Your task to perform on an android device: Show the shopping cart on ebay. Add "macbook" to the cart on ebay Image 0: 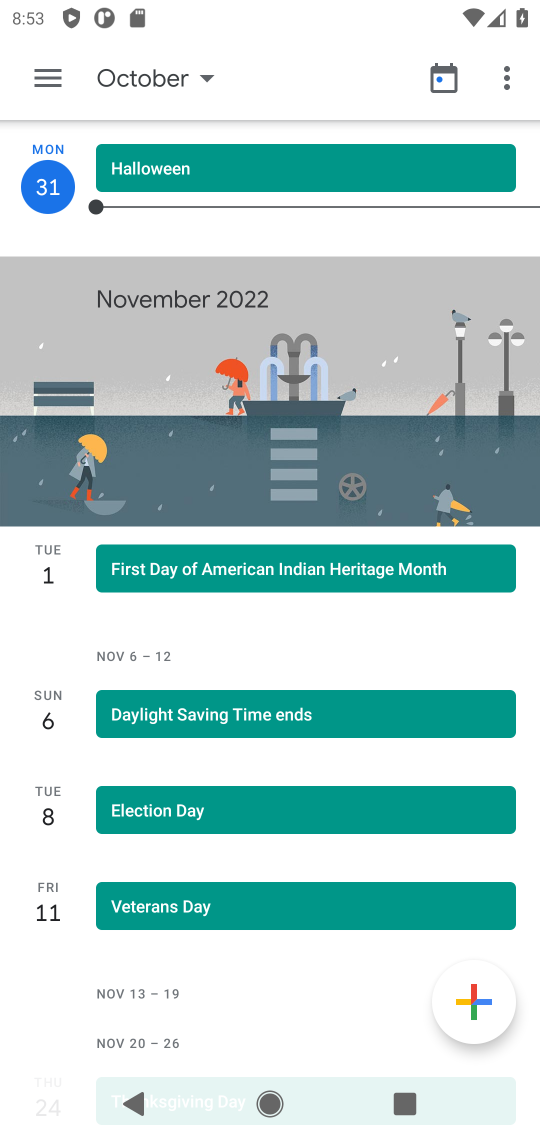
Step 0: press home button
Your task to perform on an android device: Show the shopping cart on ebay. Add "macbook" to the cart on ebay Image 1: 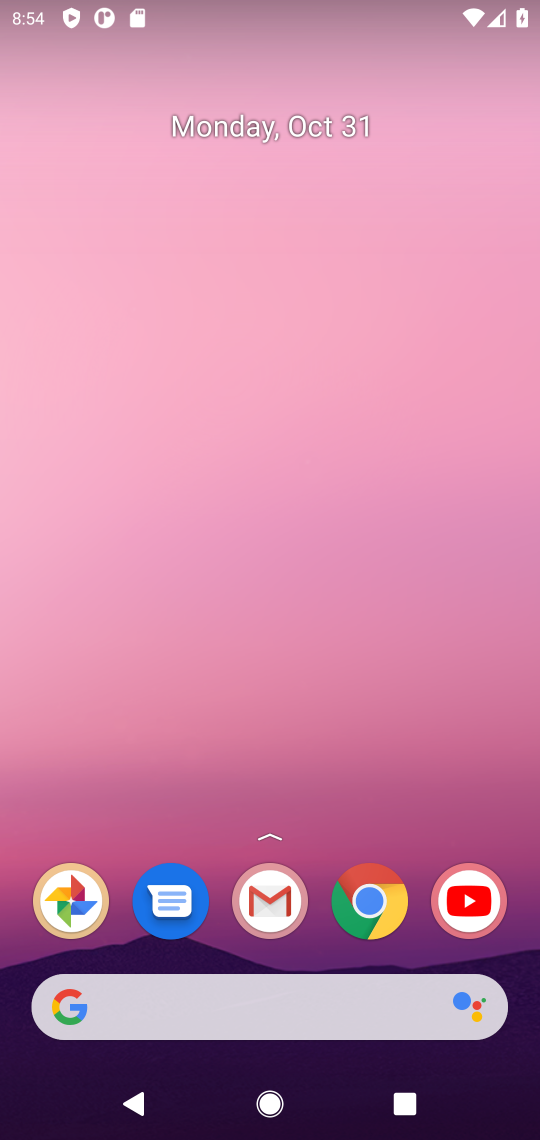
Step 1: drag from (197, 971) to (207, 261)
Your task to perform on an android device: Show the shopping cart on ebay. Add "macbook" to the cart on ebay Image 2: 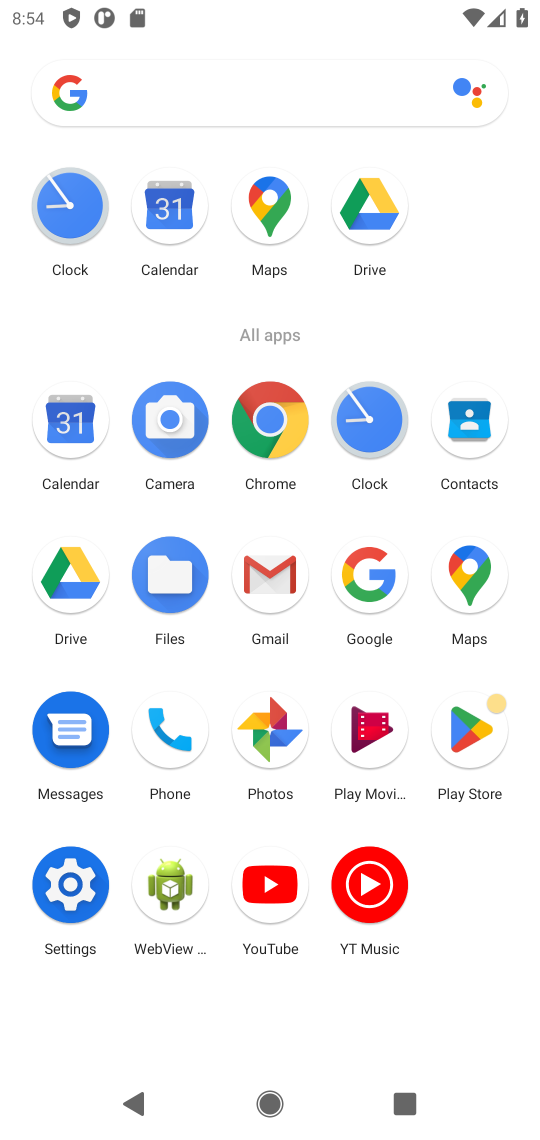
Step 2: click (361, 578)
Your task to perform on an android device: Show the shopping cart on ebay. Add "macbook" to the cart on ebay Image 3: 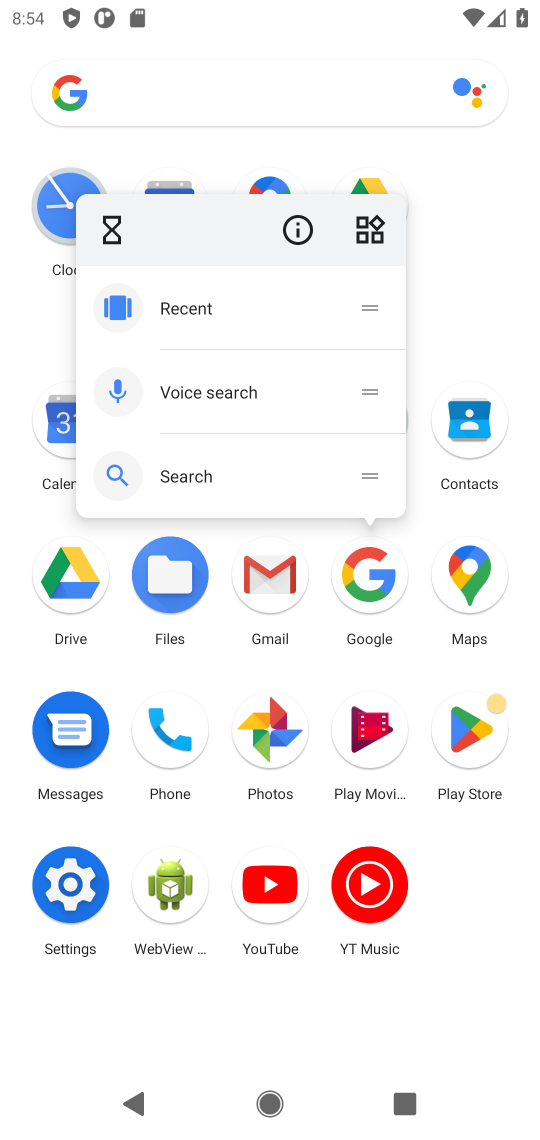
Step 3: click (361, 563)
Your task to perform on an android device: Show the shopping cart on ebay. Add "macbook" to the cart on ebay Image 4: 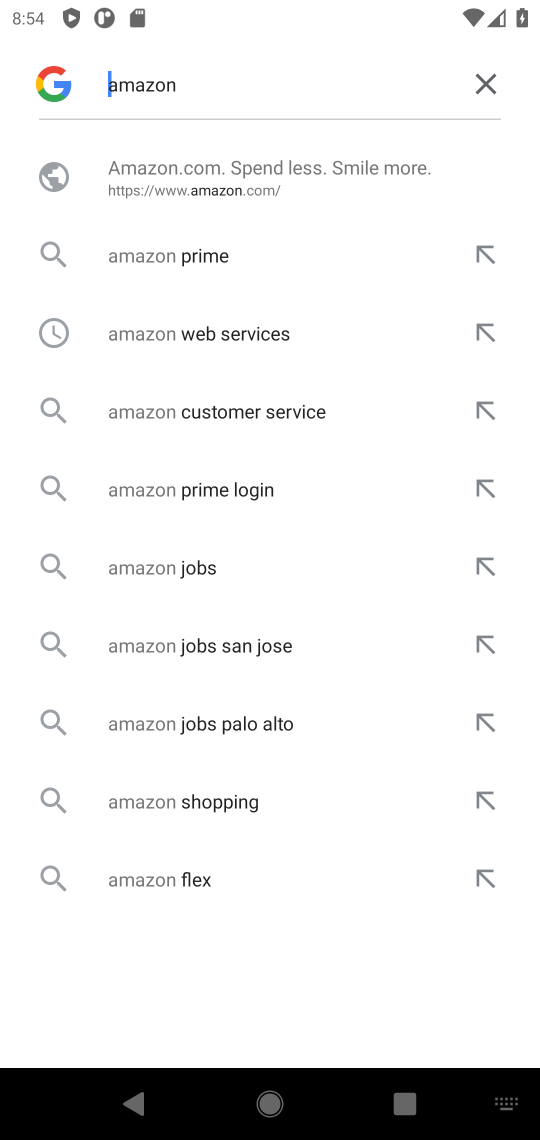
Step 4: click (472, 73)
Your task to perform on an android device: Show the shopping cart on ebay. Add "macbook" to the cart on ebay Image 5: 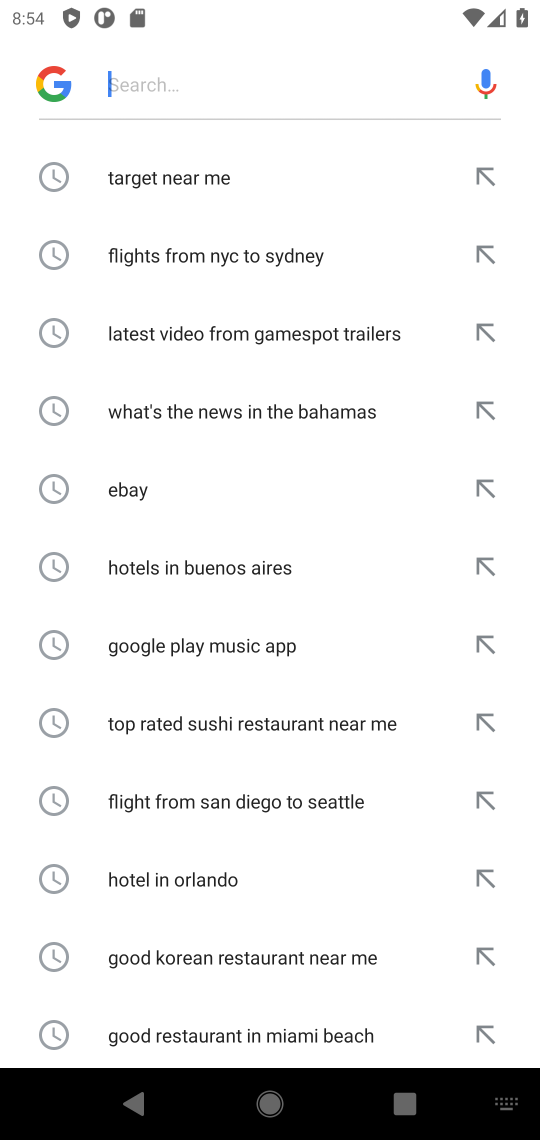
Step 5: click (274, 90)
Your task to perform on an android device: Show the shopping cart on ebay. Add "macbook" to the cart on ebay Image 6: 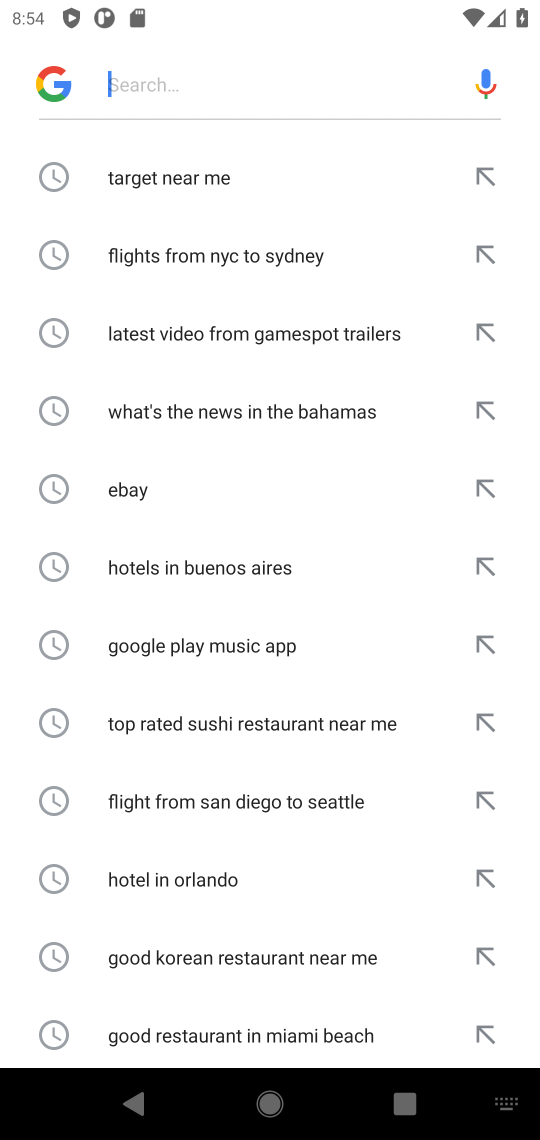
Step 6: type "ebay "
Your task to perform on an android device: Show the shopping cart on ebay. Add "macbook" to the cart on ebay Image 7: 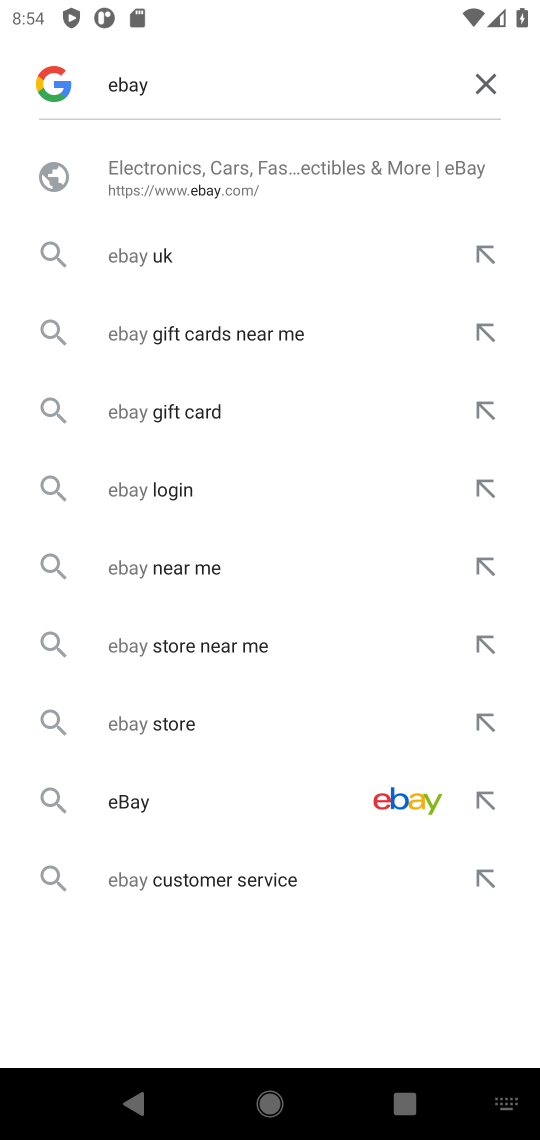
Step 7: click (134, 253)
Your task to perform on an android device: Show the shopping cart on ebay. Add "macbook" to the cart on ebay Image 8: 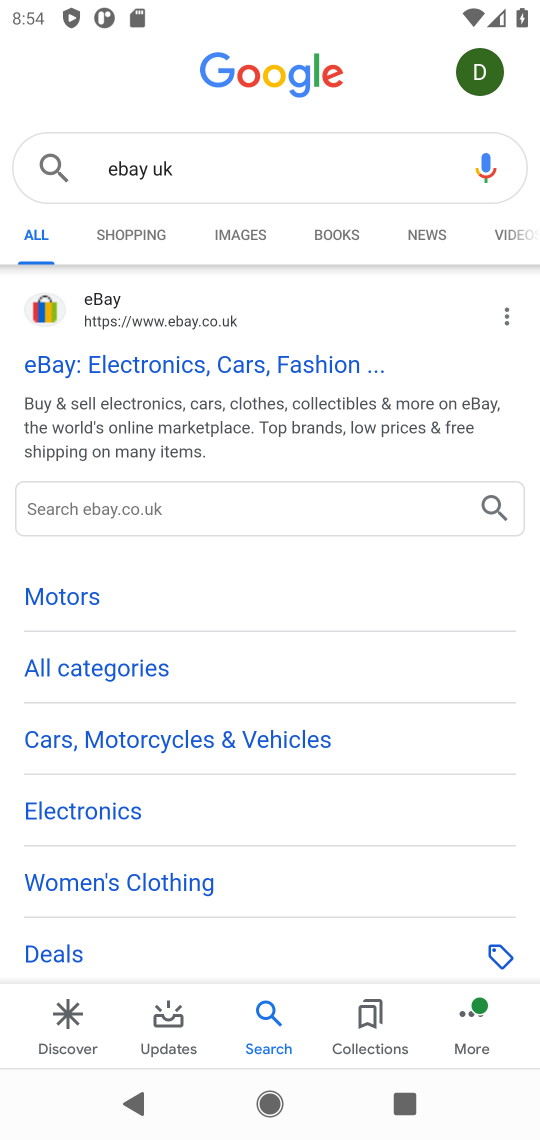
Step 8: click (46, 308)
Your task to perform on an android device: Show the shopping cart on ebay. Add "macbook" to the cart on ebay Image 9: 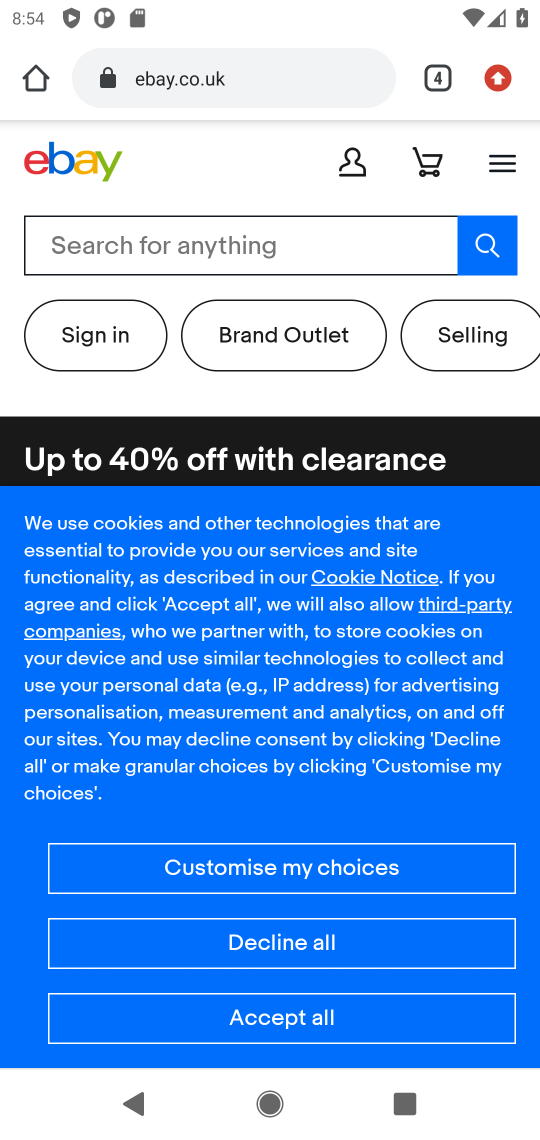
Step 9: click (194, 237)
Your task to perform on an android device: Show the shopping cart on ebay. Add "macbook" to the cart on ebay Image 10: 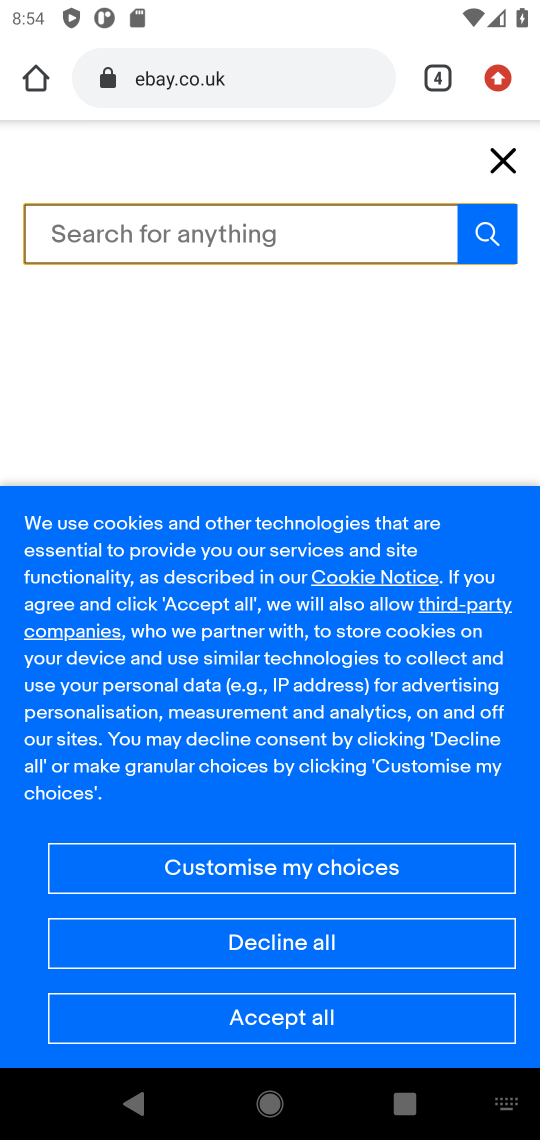
Step 10: type "macbook "
Your task to perform on an android device: Show the shopping cart on ebay. Add "macbook" to the cart on ebay Image 11: 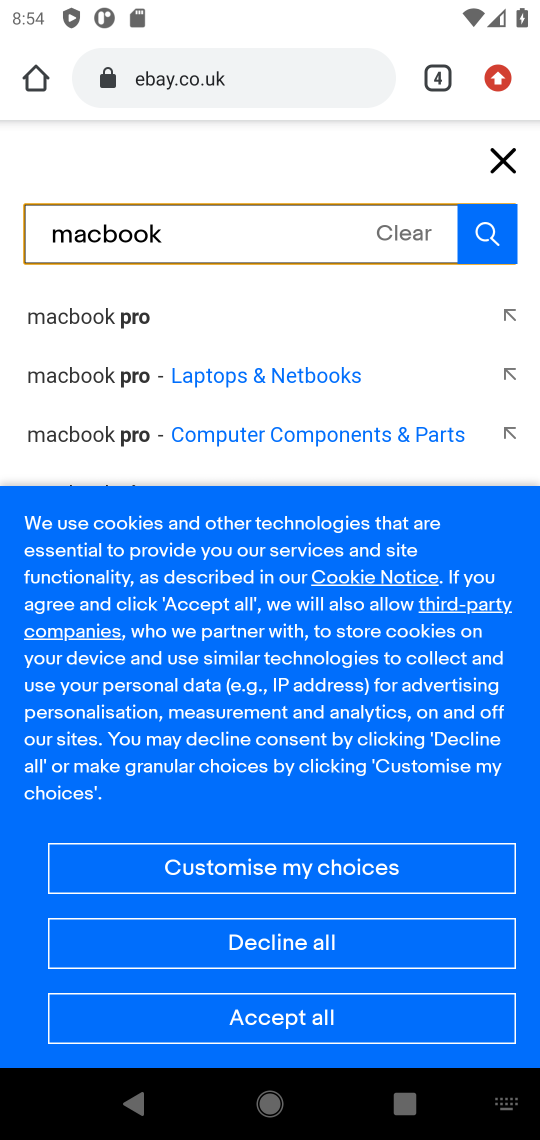
Step 11: click (296, 1012)
Your task to perform on an android device: Show the shopping cart on ebay. Add "macbook" to the cart on ebay Image 12: 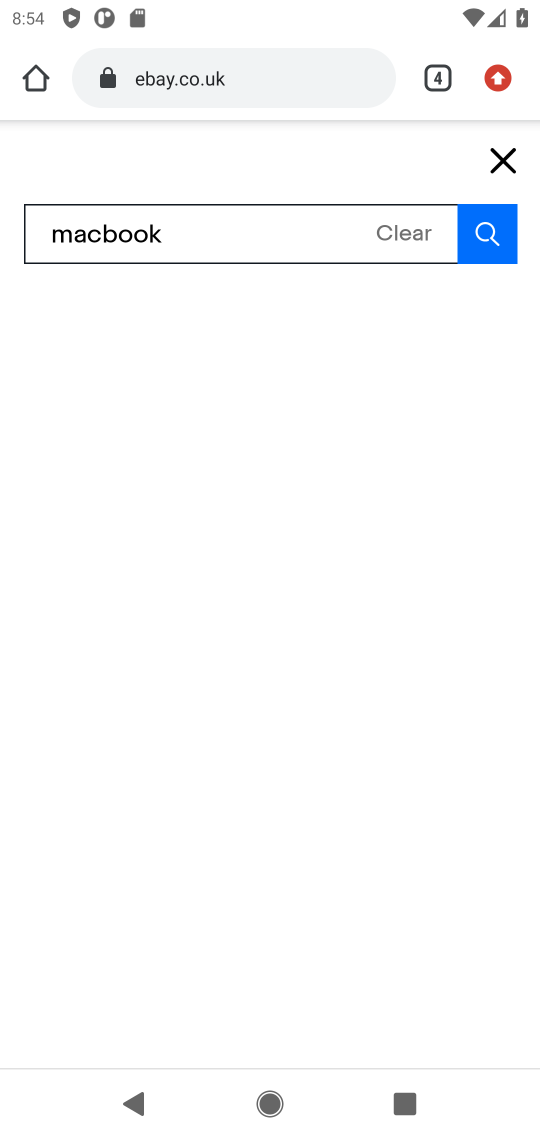
Step 12: click (478, 227)
Your task to perform on an android device: Show the shopping cart on ebay. Add "macbook" to the cart on ebay Image 13: 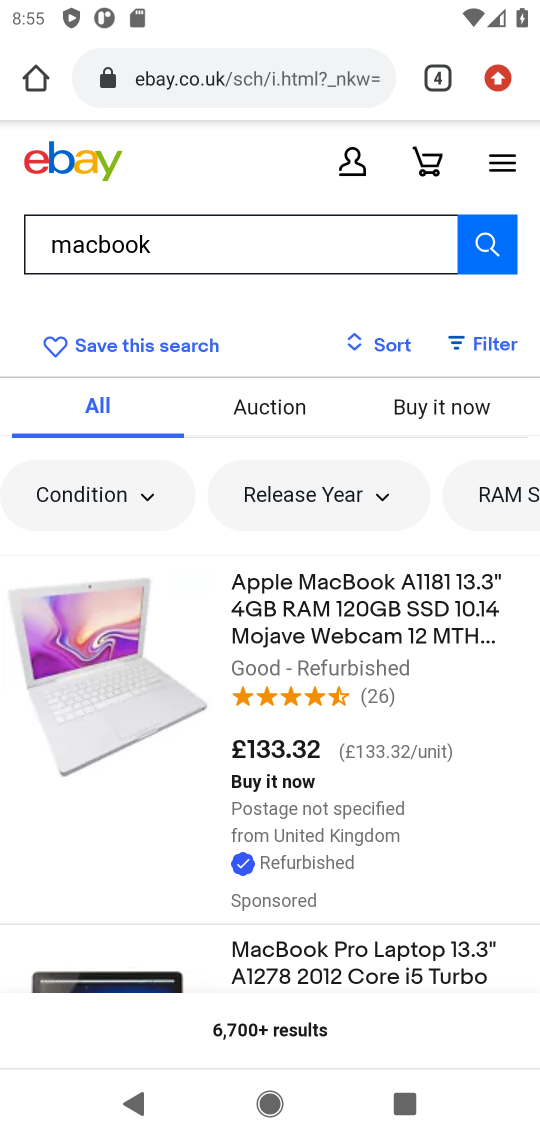
Step 13: drag from (187, 841) to (238, 583)
Your task to perform on an android device: Show the shopping cart on ebay. Add "macbook" to the cart on ebay Image 14: 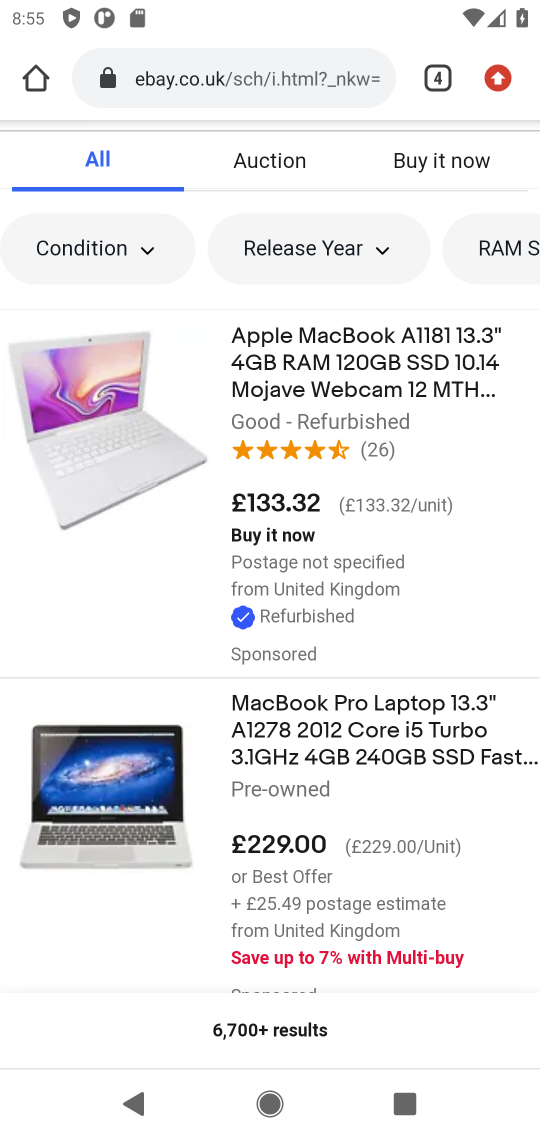
Step 14: click (256, 366)
Your task to perform on an android device: Show the shopping cart on ebay. Add "macbook" to the cart on ebay Image 15: 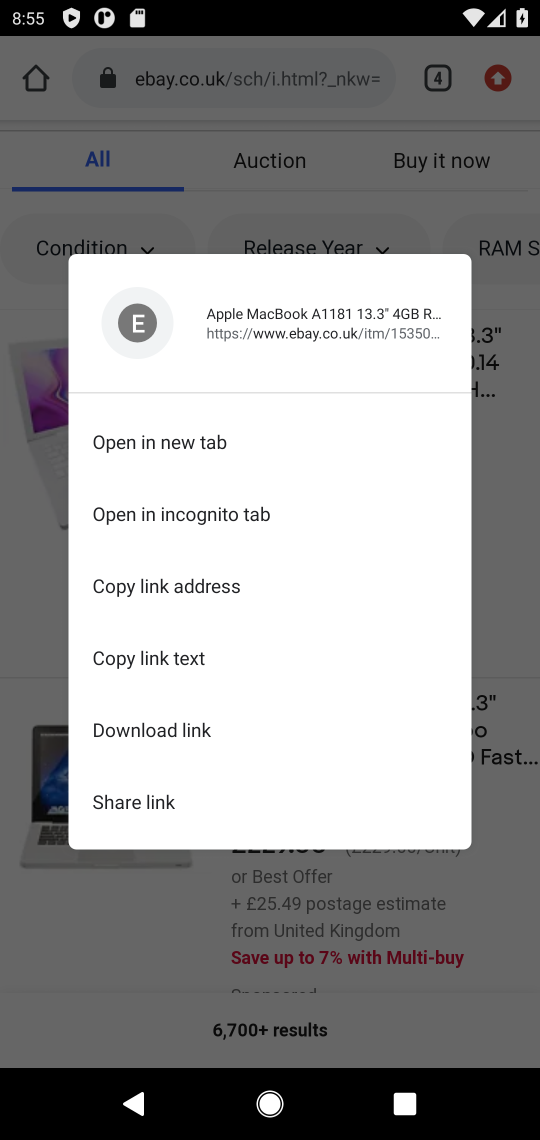
Step 15: click (494, 538)
Your task to perform on an android device: Show the shopping cart on ebay. Add "macbook" to the cart on ebay Image 16: 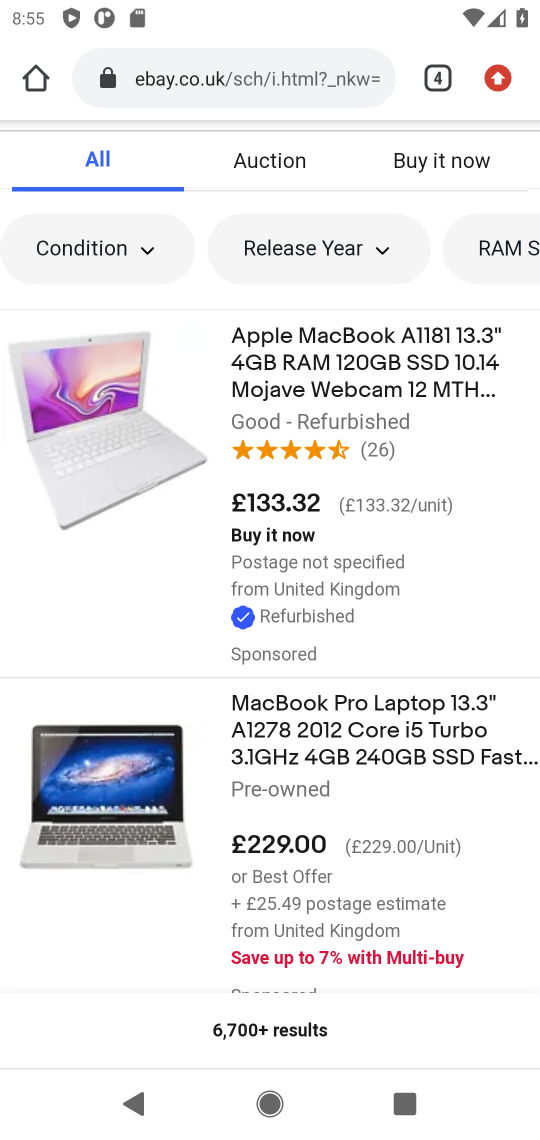
Step 16: click (196, 510)
Your task to perform on an android device: Show the shopping cart on ebay. Add "macbook" to the cart on ebay Image 17: 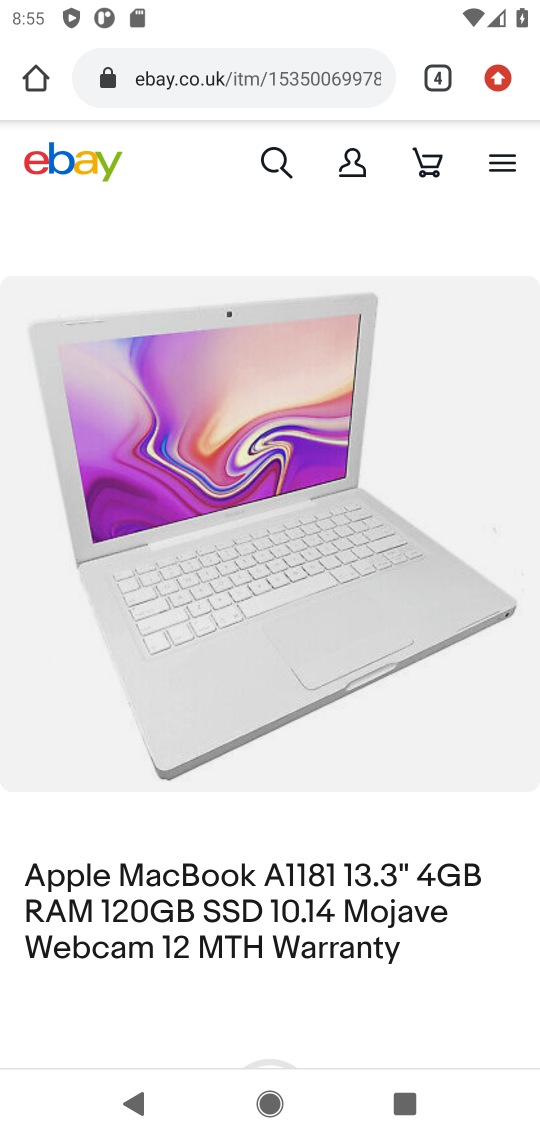
Step 17: drag from (170, 964) to (204, 307)
Your task to perform on an android device: Show the shopping cart on ebay. Add "macbook" to the cart on ebay Image 18: 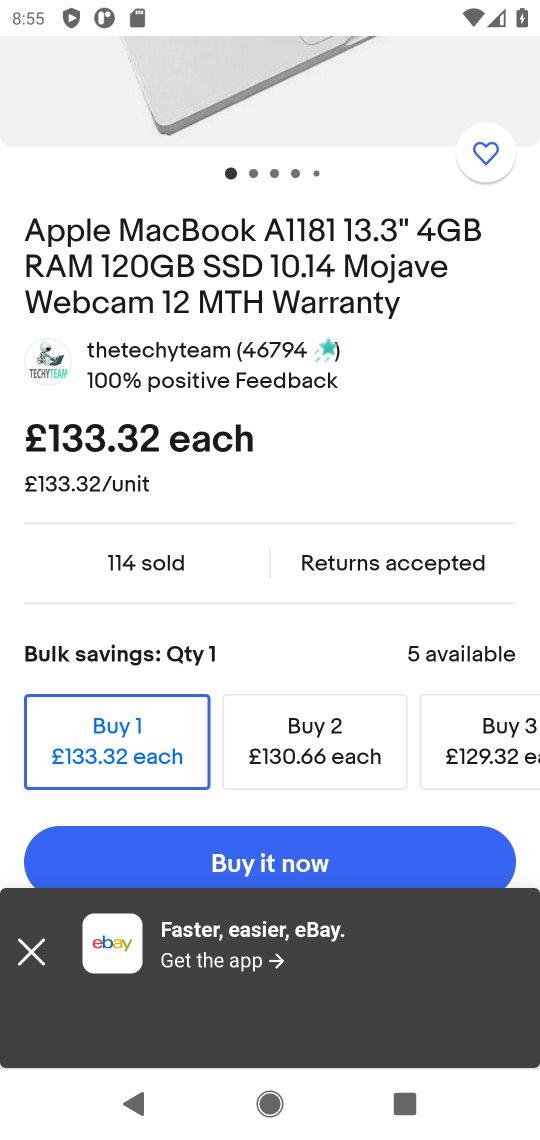
Step 18: click (34, 949)
Your task to perform on an android device: Show the shopping cart on ebay. Add "macbook" to the cart on ebay Image 19: 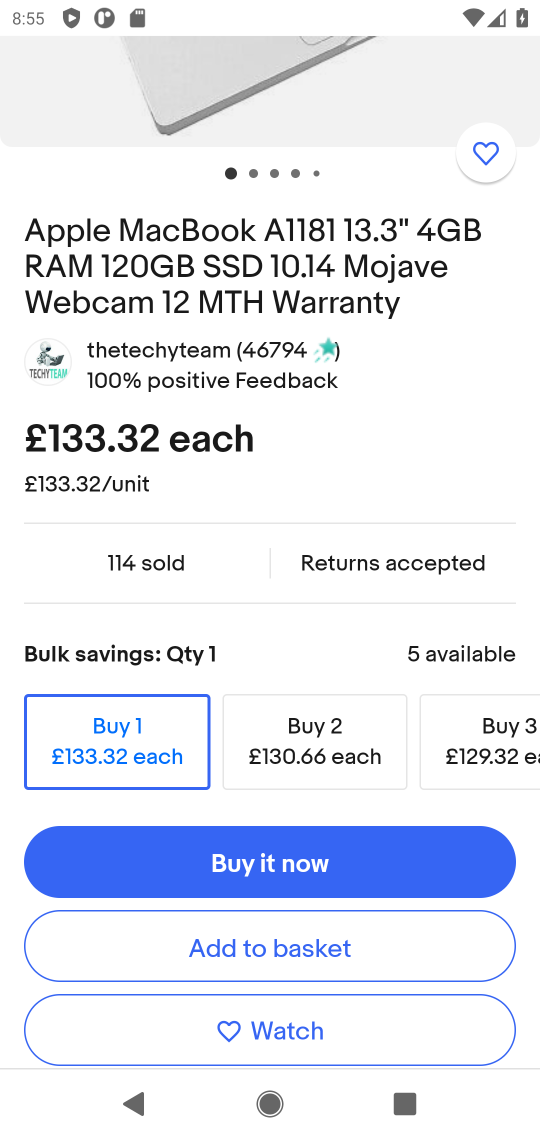
Step 19: click (276, 931)
Your task to perform on an android device: Show the shopping cart on ebay. Add "macbook" to the cart on ebay Image 20: 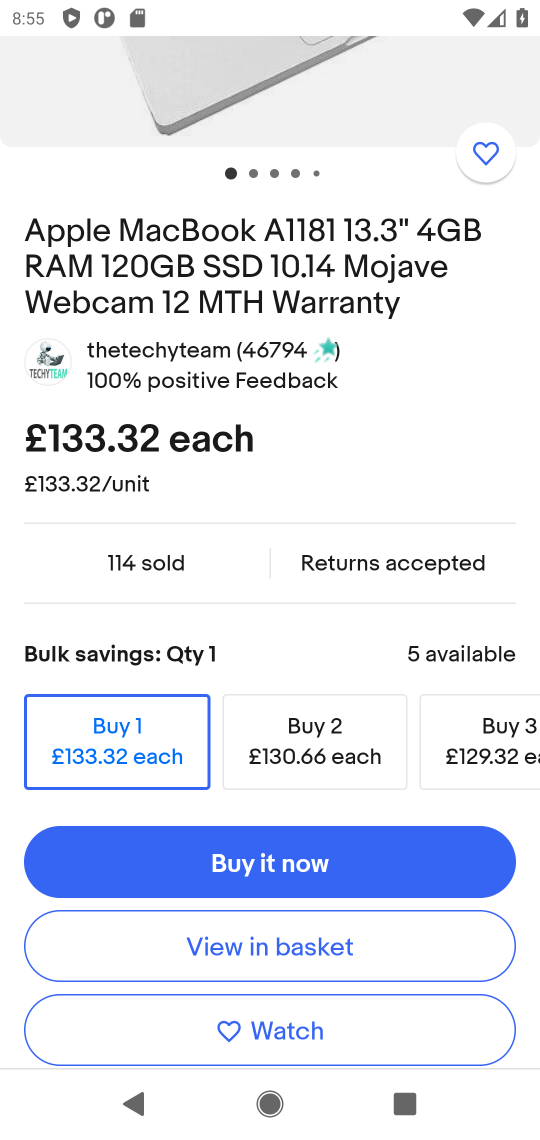
Step 20: task complete